Your task to perform on an android device: turn notification dots on Image 0: 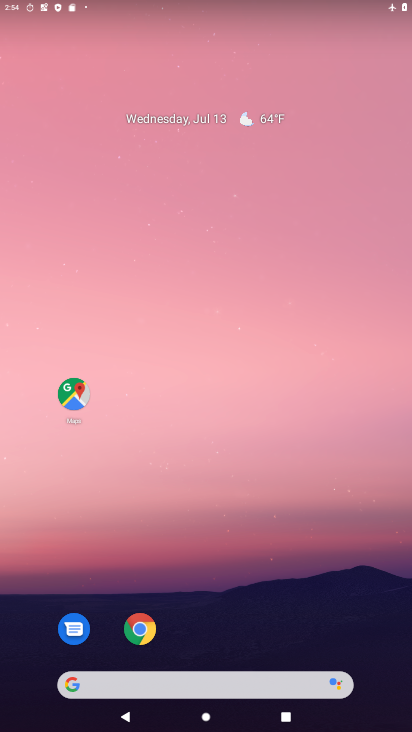
Step 0: drag from (294, 598) to (280, 126)
Your task to perform on an android device: turn notification dots on Image 1: 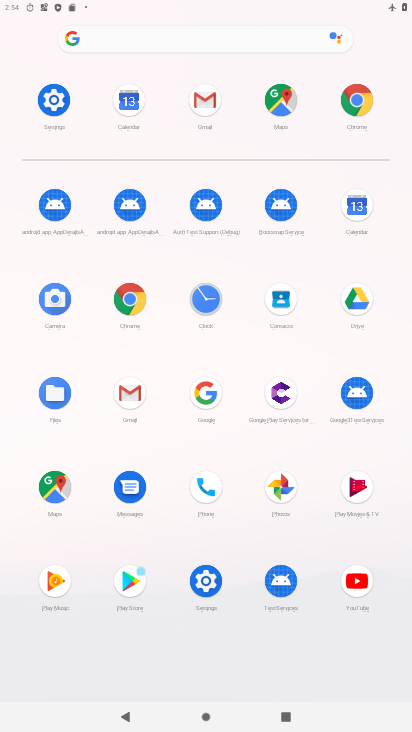
Step 1: click (45, 100)
Your task to perform on an android device: turn notification dots on Image 2: 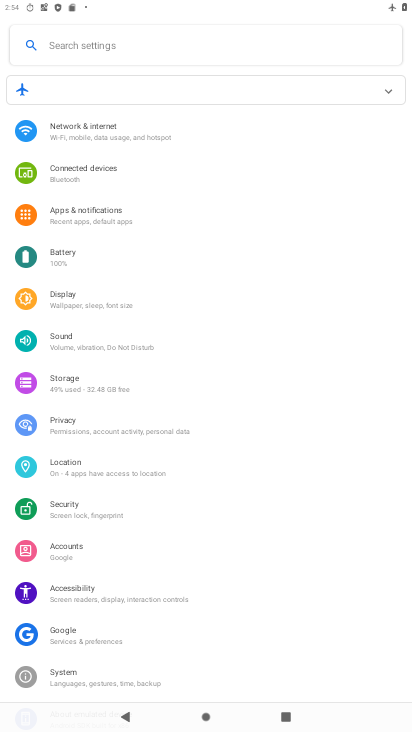
Step 2: click (109, 221)
Your task to perform on an android device: turn notification dots on Image 3: 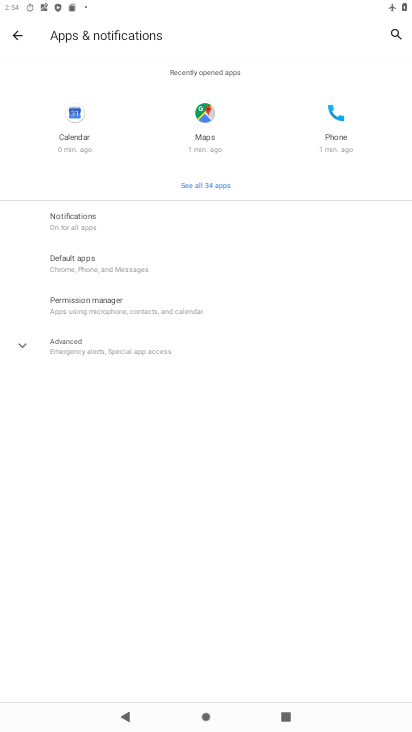
Step 3: click (99, 220)
Your task to perform on an android device: turn notification dots on Image 4: 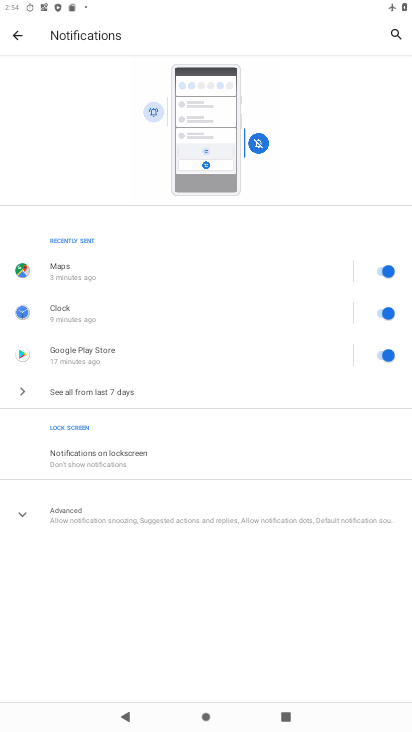
Step 4: click (90, 522)
Your task to perform on an android device: turn notification dots on Image 5: 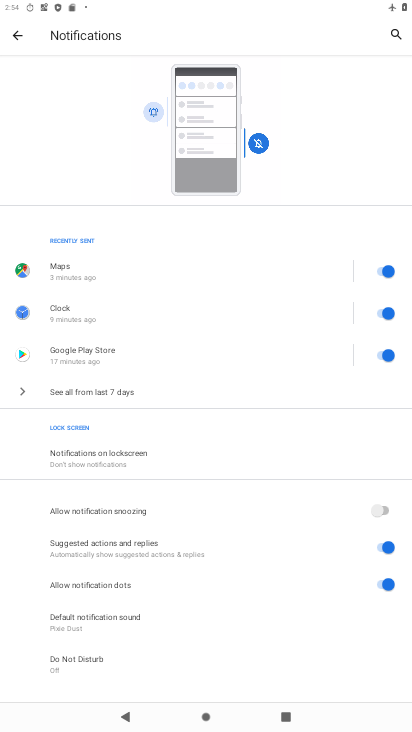
Step 5: task complete